Your task to perform on an android device: Do I have any events today? Image 0: 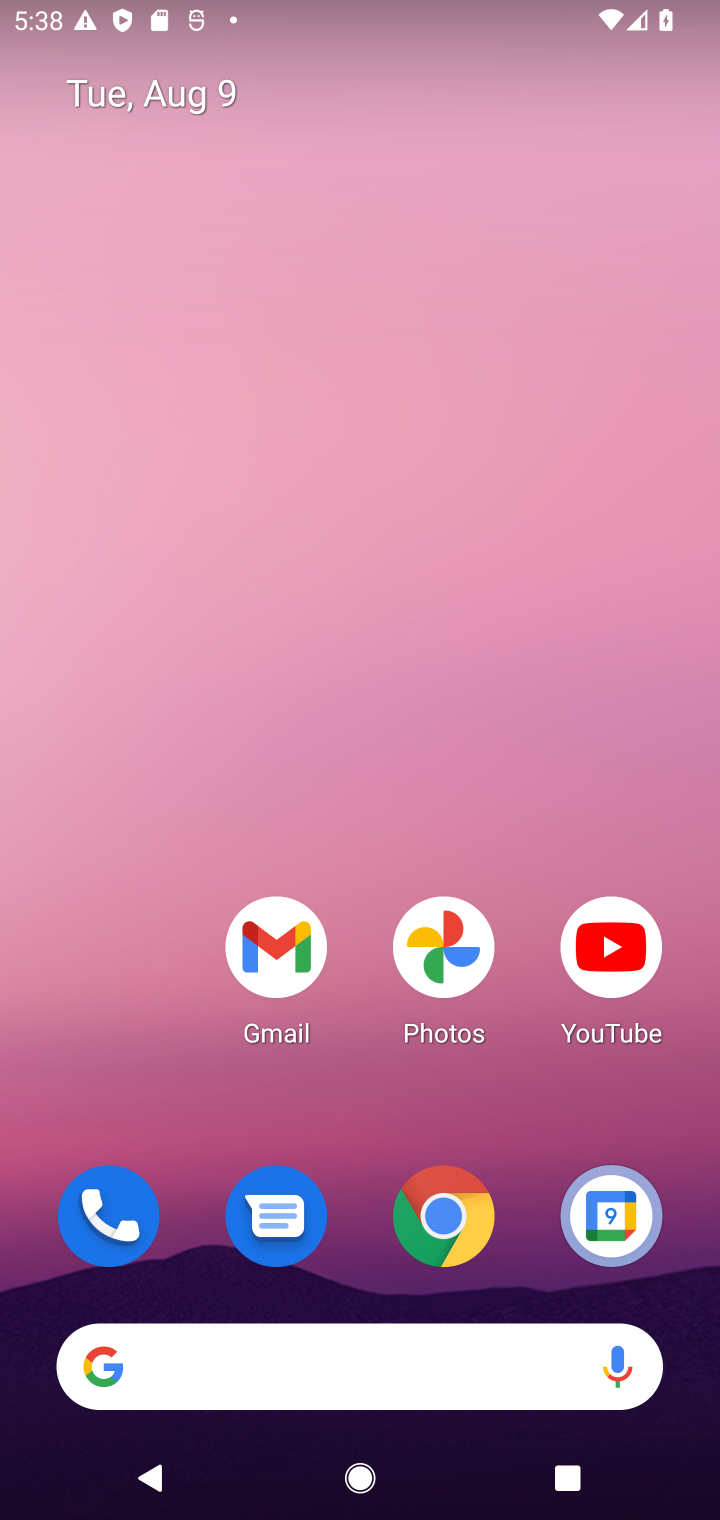
Step 0: click (643, 1220)
Your task to perform on an android device: Do I have any events today? Image 1: 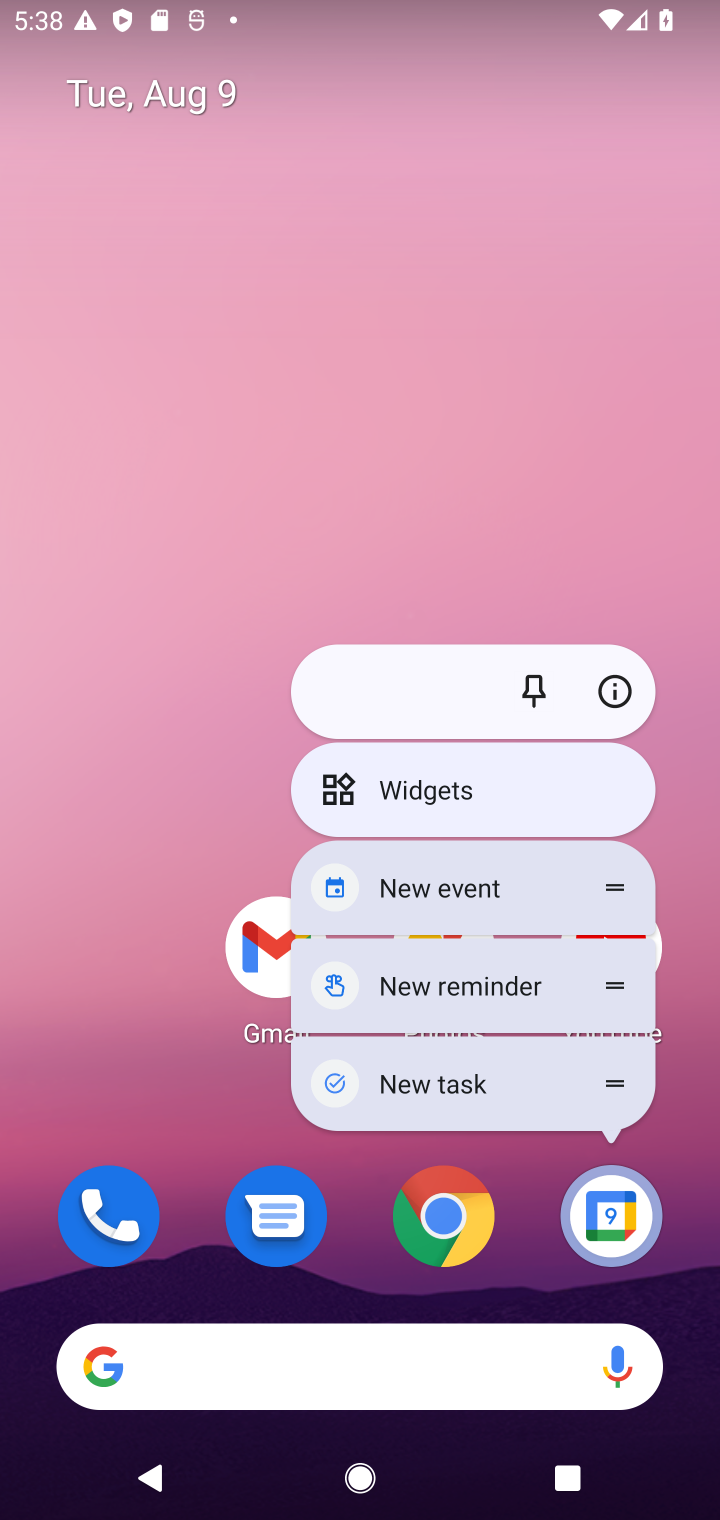
Step 1: click (623, 1209)
Your task to perform on an android device: Do I have any events today? Image 2: 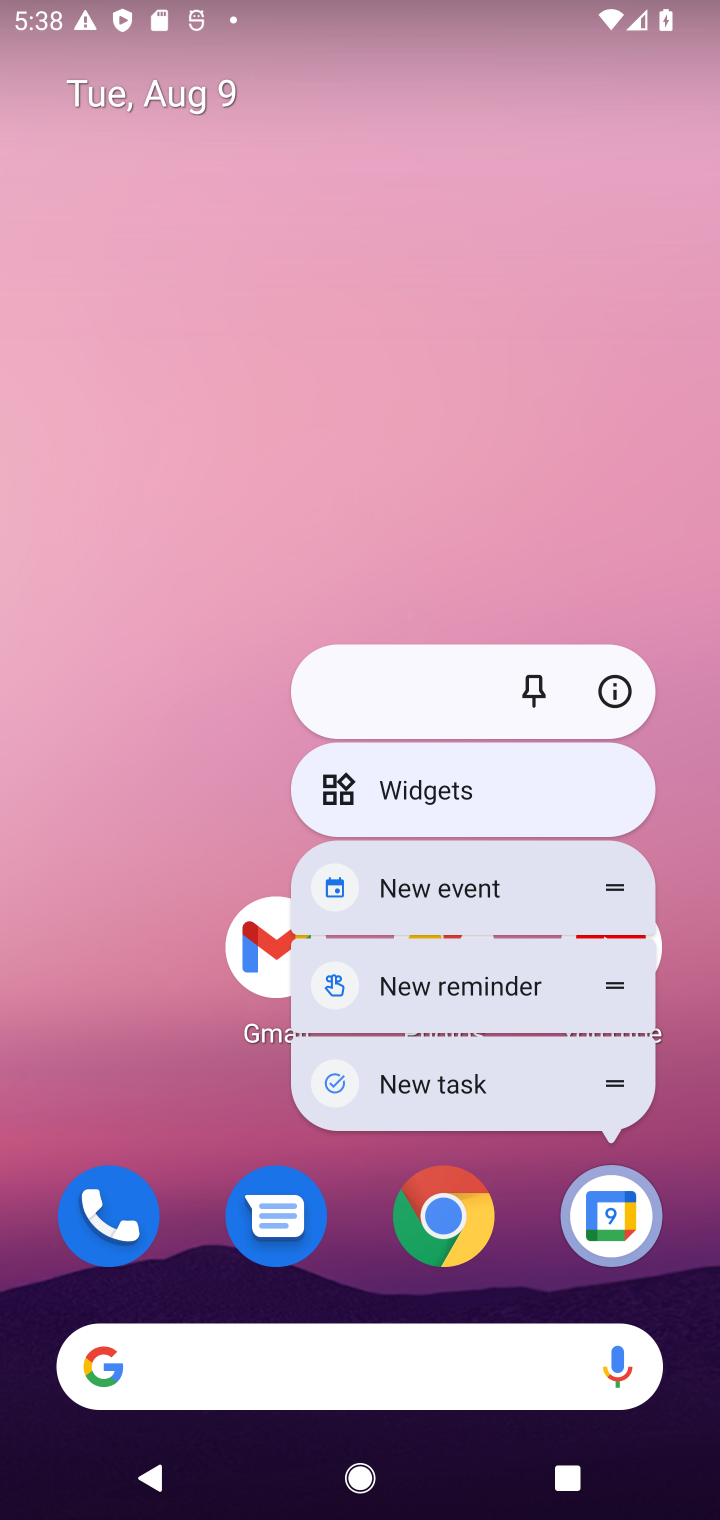
Step 2: click (618, 1223)
Your task to perform on an android device: Do I have any events today? Image 3: 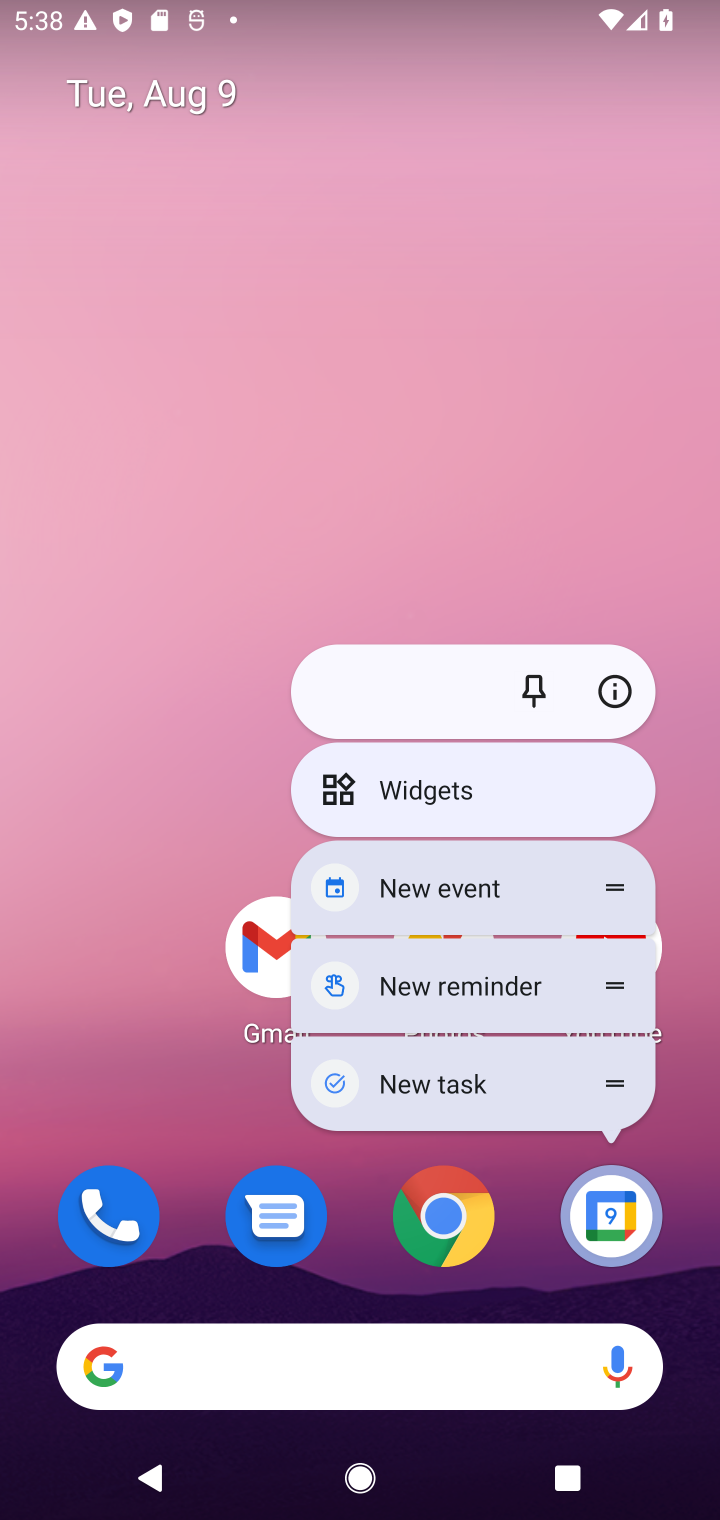
Step 3: click (618, 1223)
Your task to perform on an android device: Do I have any events today? Image 4: 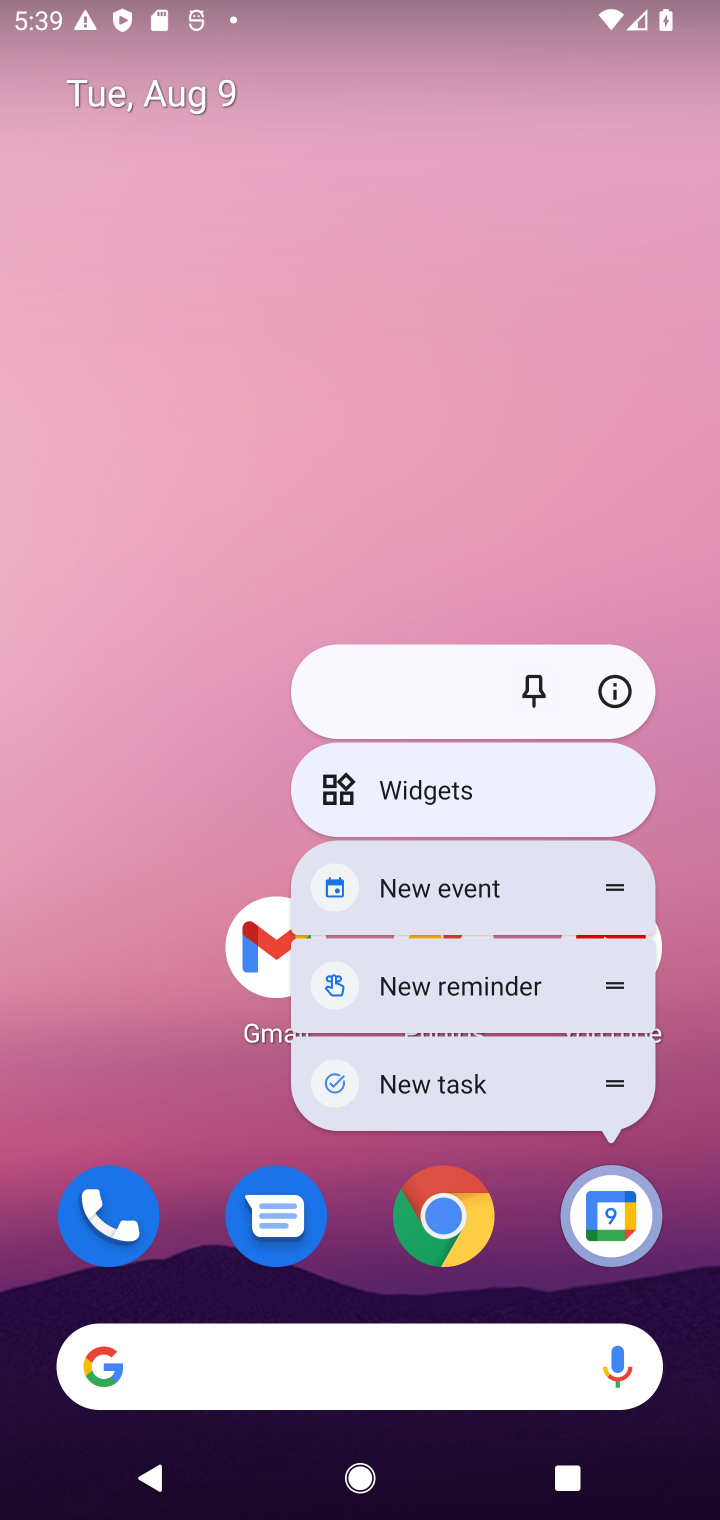
Step 4: click (592, 1201)
Your task to perform on an android device: Do I have any events today? Image 5: 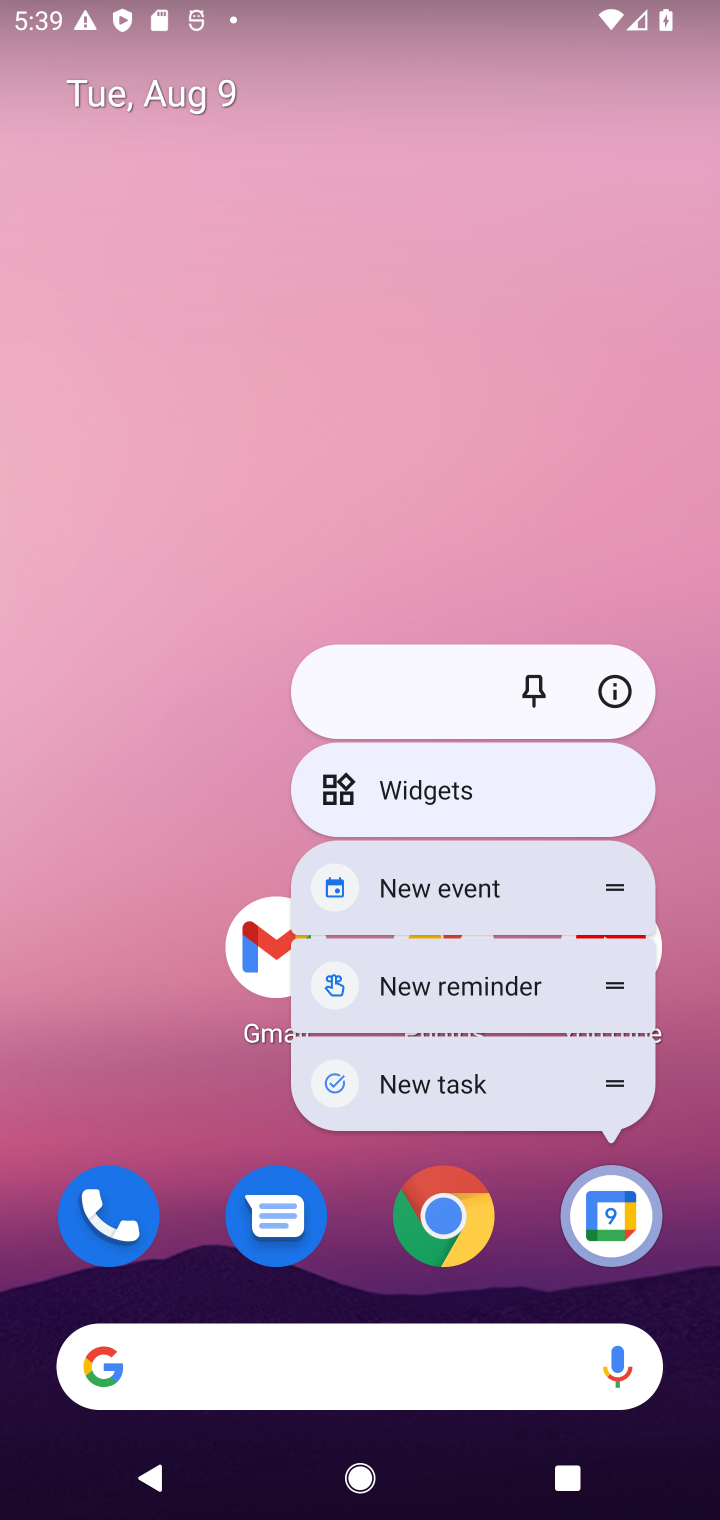
Step 5: click (578, 1206)
Your task to perform on an android device: Do I have any events today? Image 6: 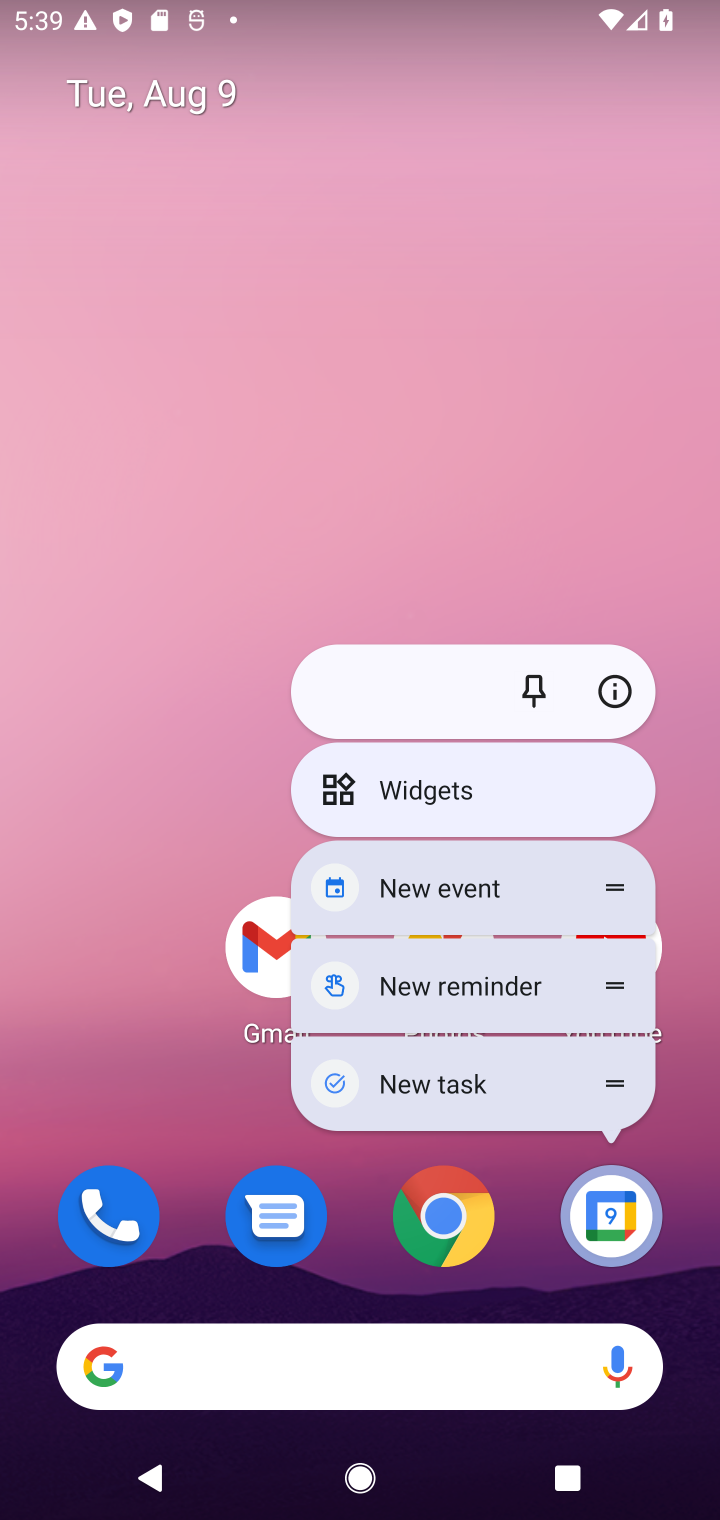
Step 6: click (645, 1218)
Your task to perform on an android device: Do I have any events today? Image 7: 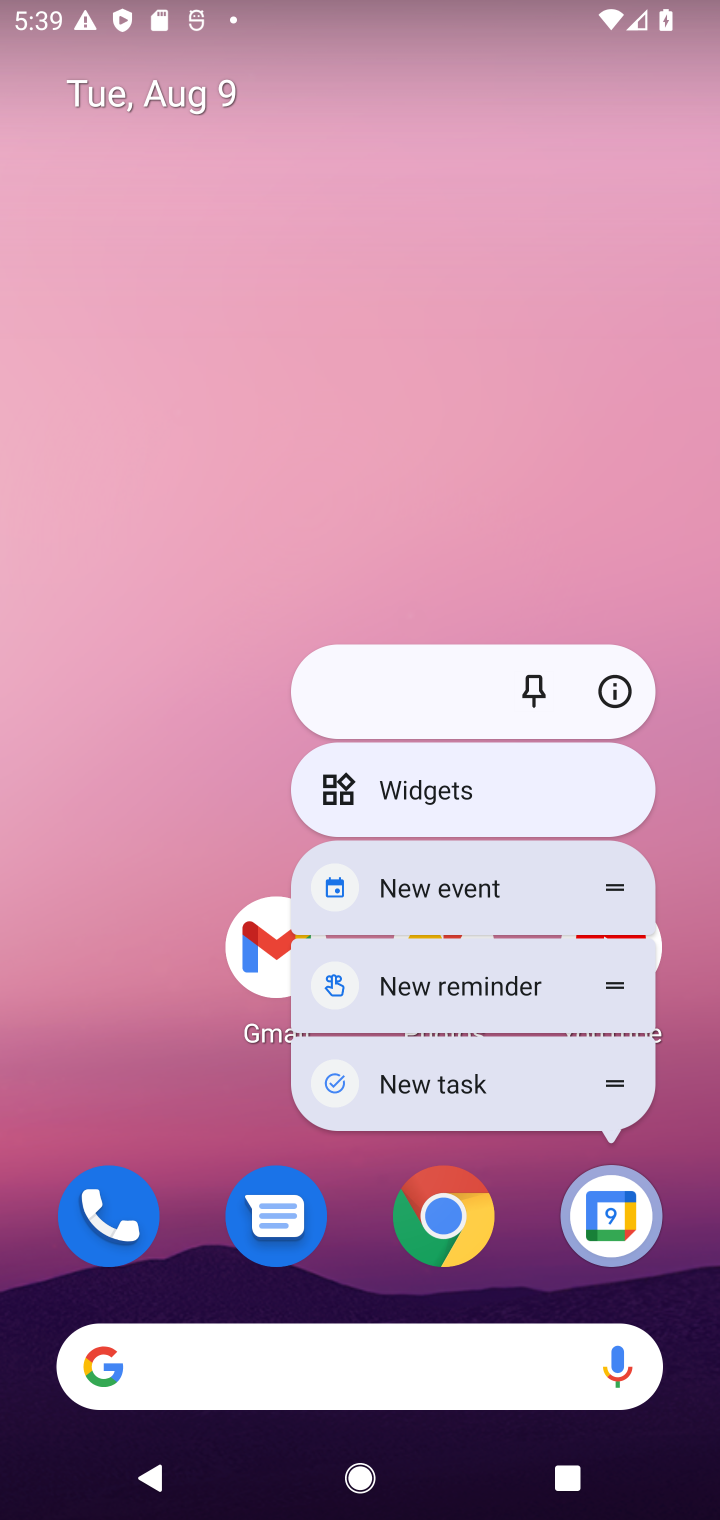
Step 7: click (605, 1225)
Your task to perform on an android device: Do I have any events today? Image 8: 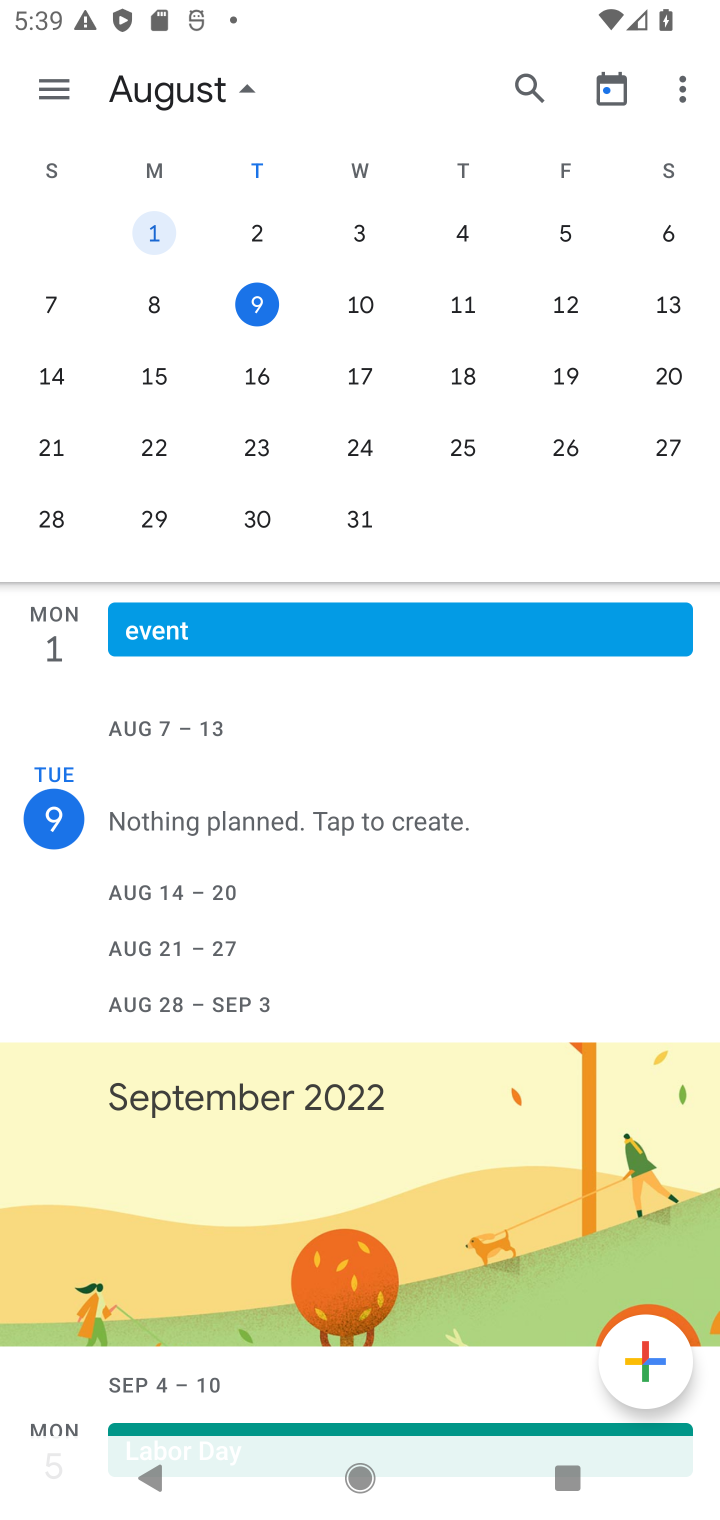
Step 8: click (256, 304)
Your task to perform on an android device: Do I have any events today? Image 9: 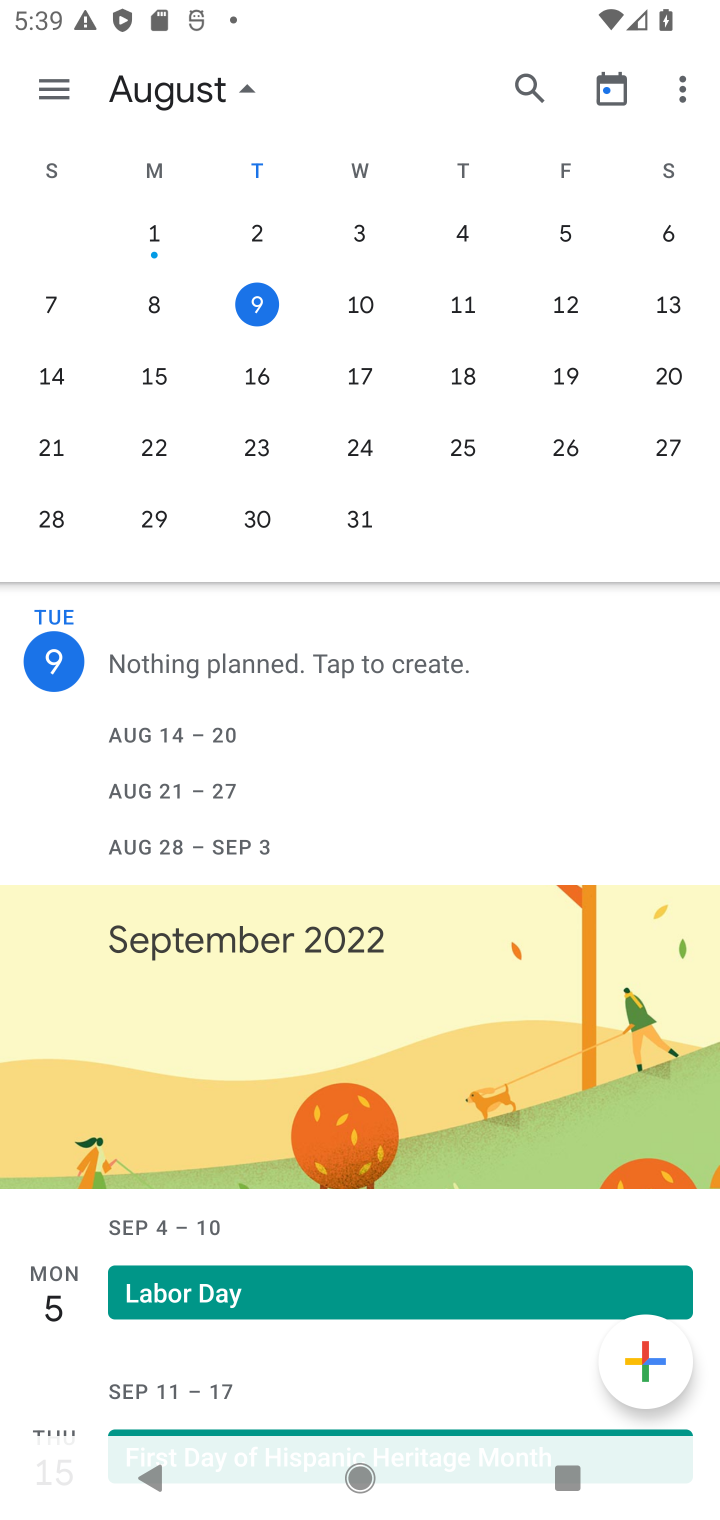
Step 9: task complete